Your task to perform on an android device: set default search engine in the chrome app Image 0: 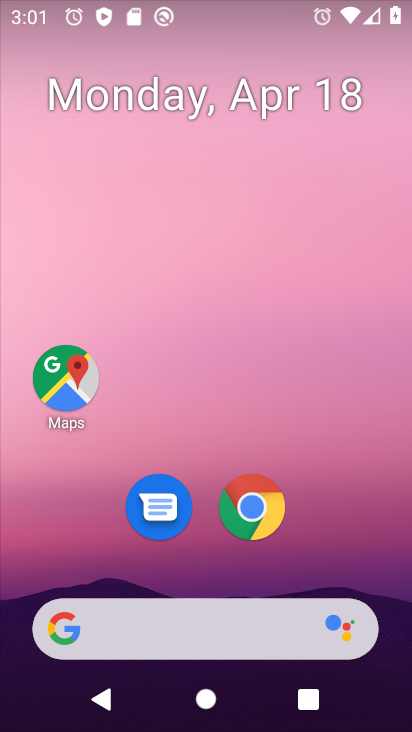
Step 0: click (254, 523)
Your task to perform on an android device: set default search engine in the chrome app Image 1: 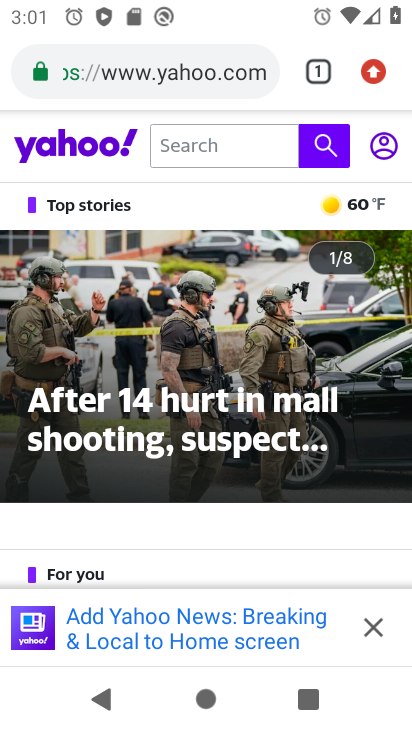
Step 1: click (373, 66)
Your task to perform on an android device: set default search engine in the chrome app Image 2: 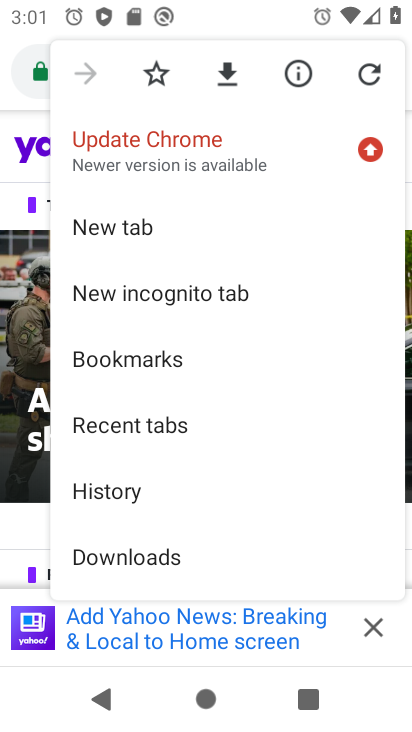
Step 2: drag from (156, 433) to (212, 114)
Your task to perform on an android device: set default search engine in the chrome app Image 3: 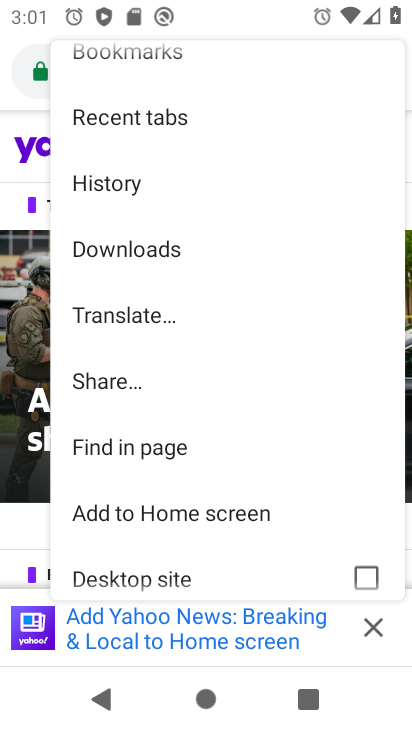
Step 3: drag from (176, 530) to (238, 115)
Your task to perform on an android device: set default search engine in the chrome app Image 4: 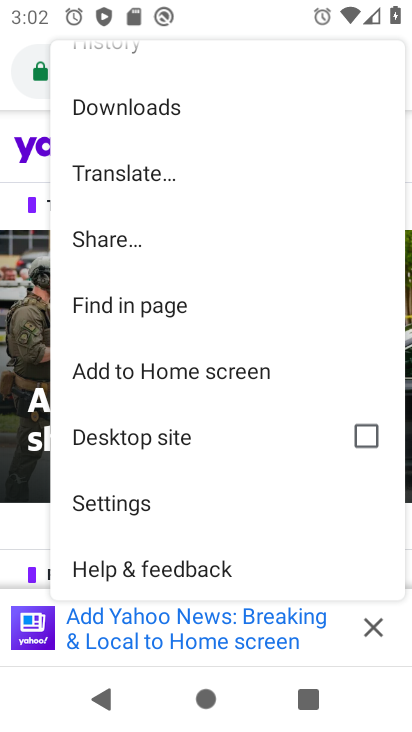
Step 4: click (133, 501)
Your task to perform on an android device: set default search engine in the chrome app Image 5: 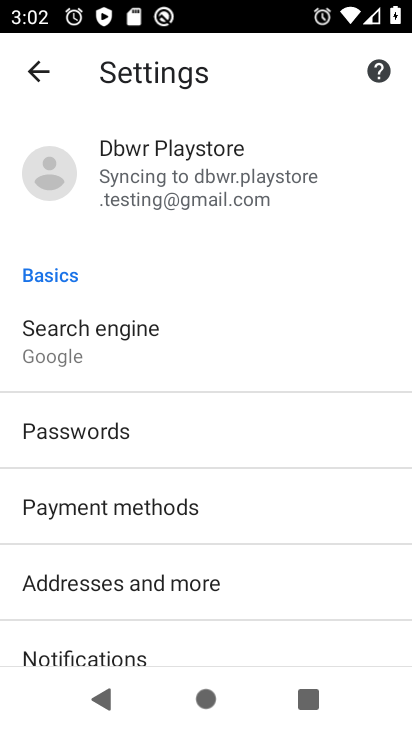
Step 5: click (138, 349)
Your task to perform on an android device: set default search engine in the chrome app Image 6: 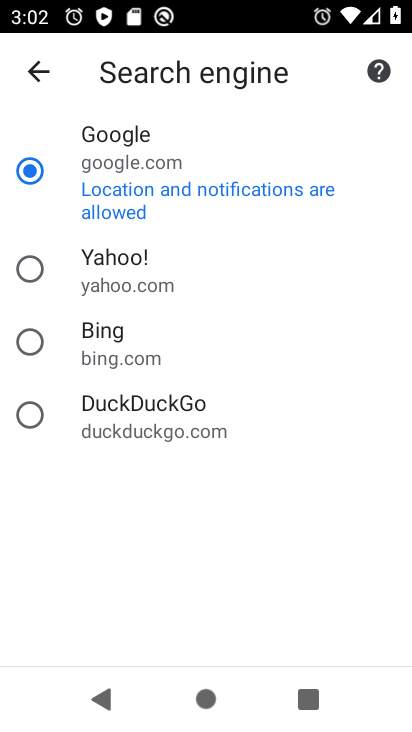
Step 6: task complete